Your task to perform on an android device: turn off data saver in the chrome app Image 0: 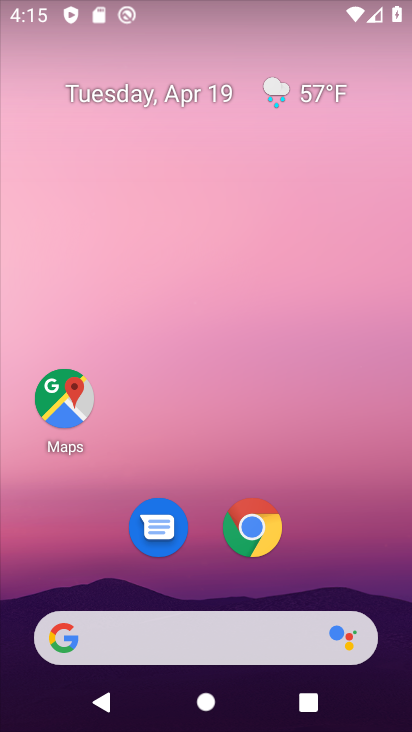
Step 0: click (250, 528)
Your task to perform on an android device: turn off data saver in the chrome app Image 1: 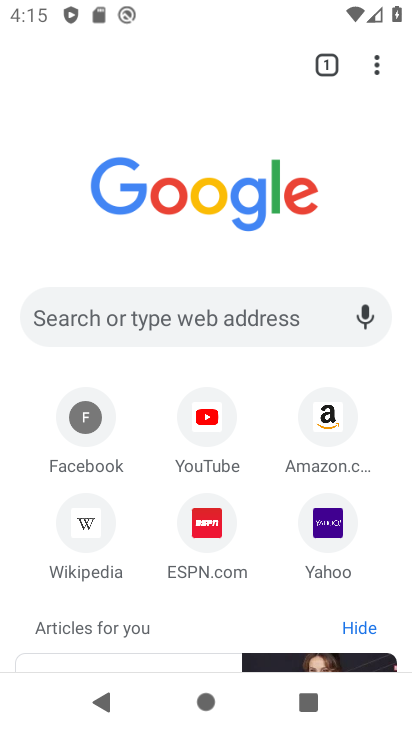
Step 1: click (373, 68)
Your task to perform on an android device: turn off data saver in the chrome app Image 2: 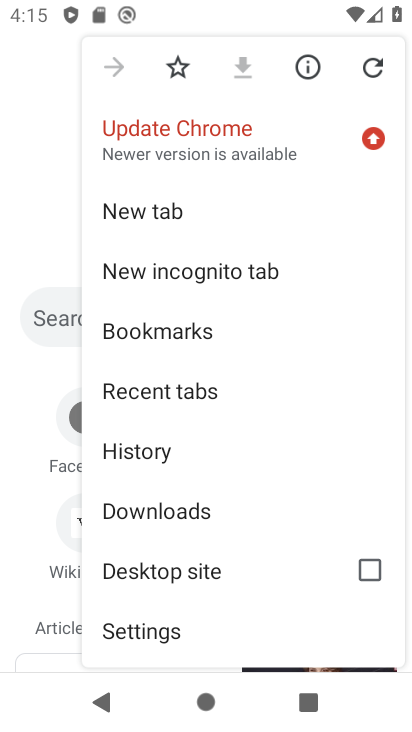
Step 2: drag from (227, 581) to (250, 370)
Your task to perform on an android device: turn off data saver in the chrome app Image 3: 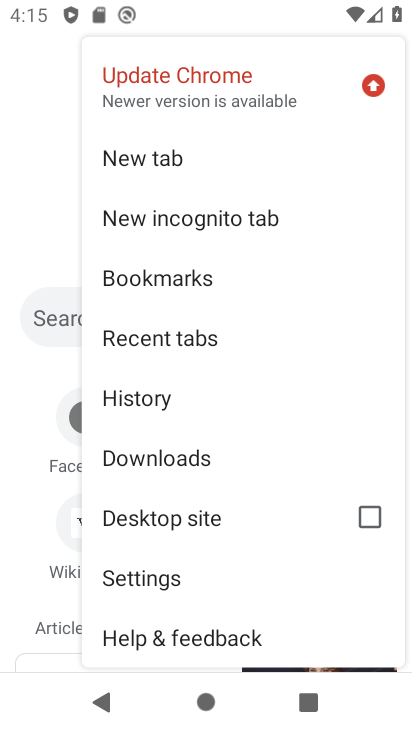
Step 3: click (141, 587)
Your task to perform on an android device: turn off data saver in the chrome app Image 4: 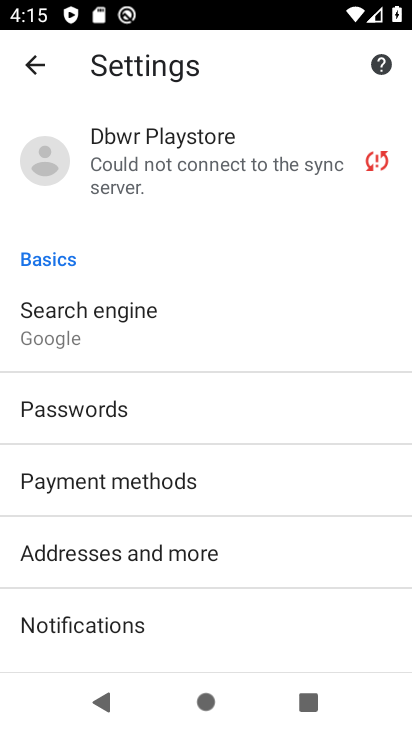
Step 4: drag from (230, 611) to (251, 328)
Your task to perform on an android device: turn off data saver in the chrome app Image 5: 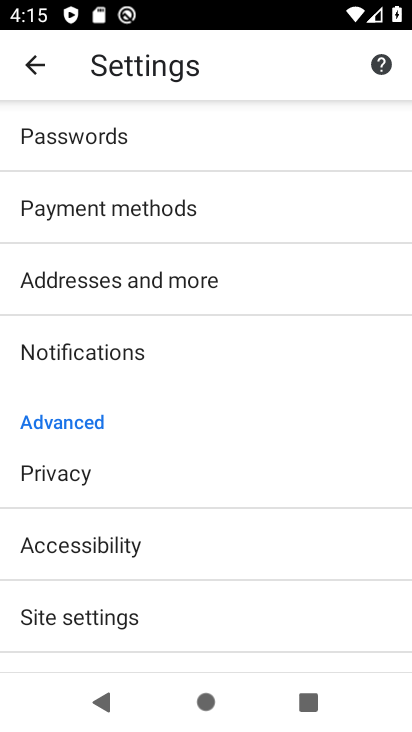
Step 5: drag from (203, 569) to (270, 248)
Your task to perform on an android device: turn off data saver in the chrome app Image 6: 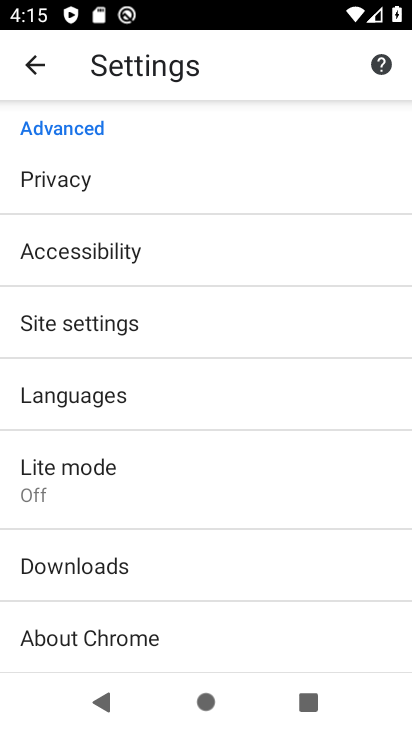
Step 6: click (33, 482)
Your task to perform on an android device: turn off data saver in the chrome app Image 7: 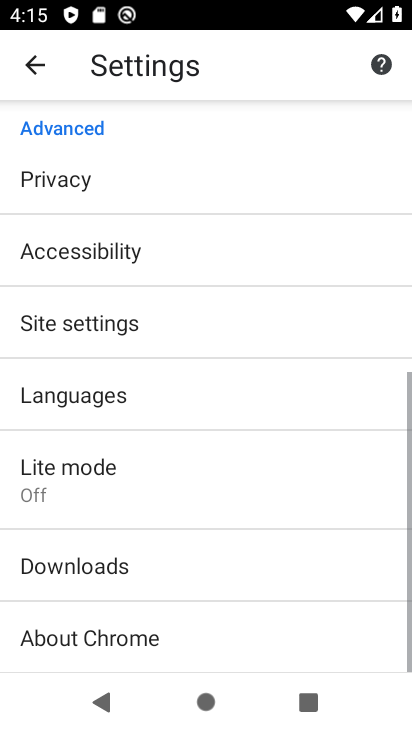
Step 7: click (33, 482)
Your task to perform on an android device: turn off data saver in the chrome app Image 8: 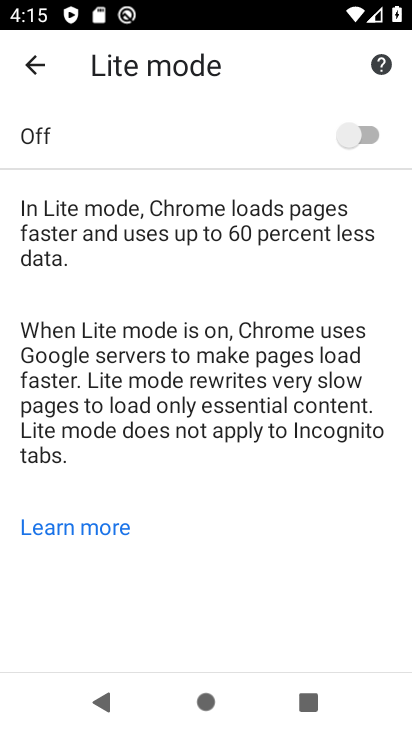
Step 8: task complete